Your task to perform on an android device: What's on my calendar today? Image 0: 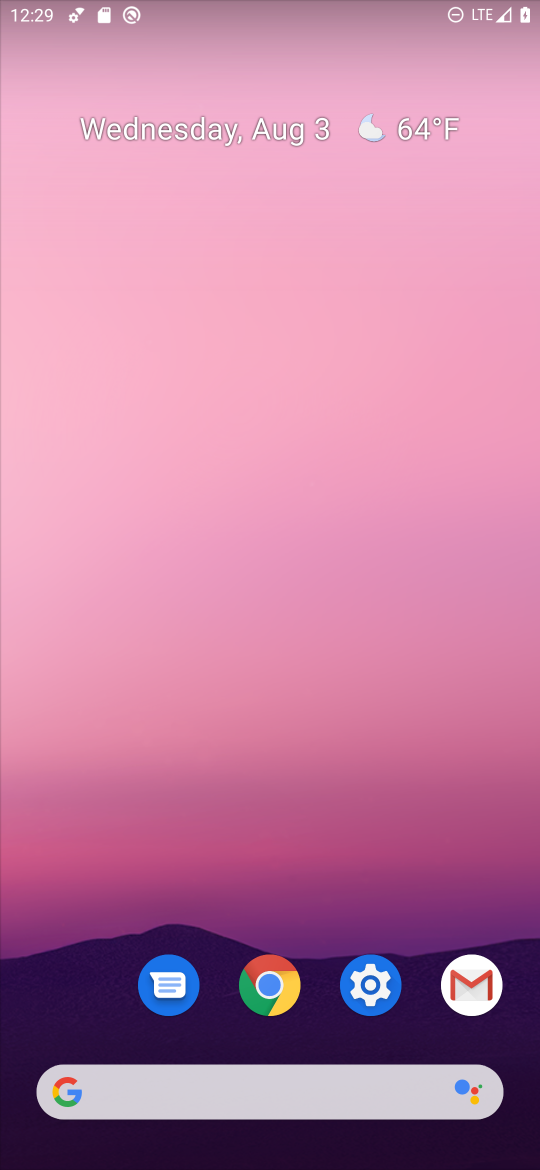
Step 0: press home button
Your task to perform on an android device: What's on my calendar today? Image 1: 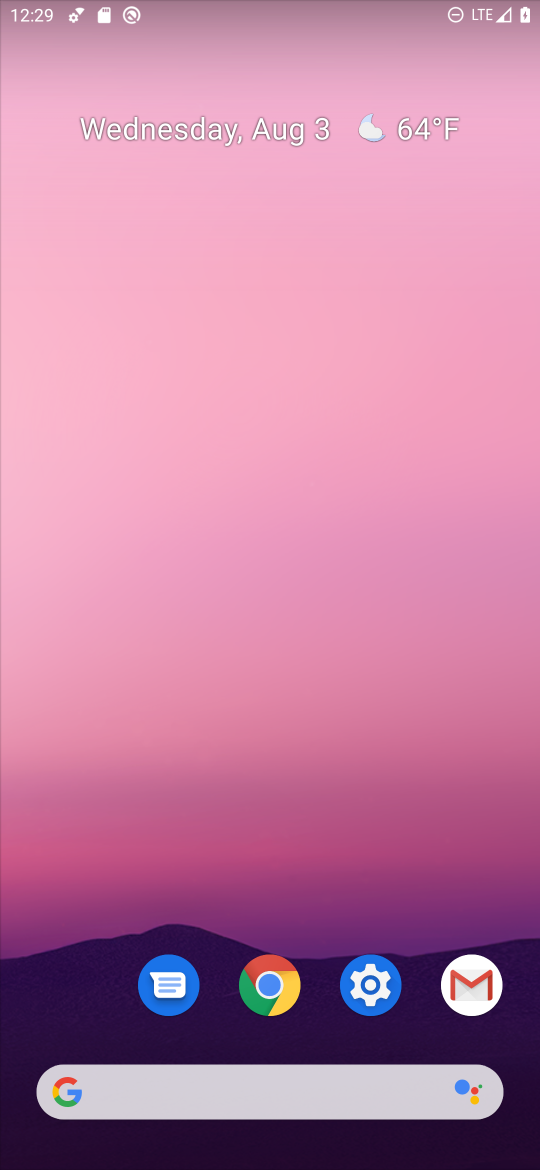
Step 1: drag from (347, 1125) to (126, 191)
Your task to perform on an android device: What's on my calendar today? Image 2: 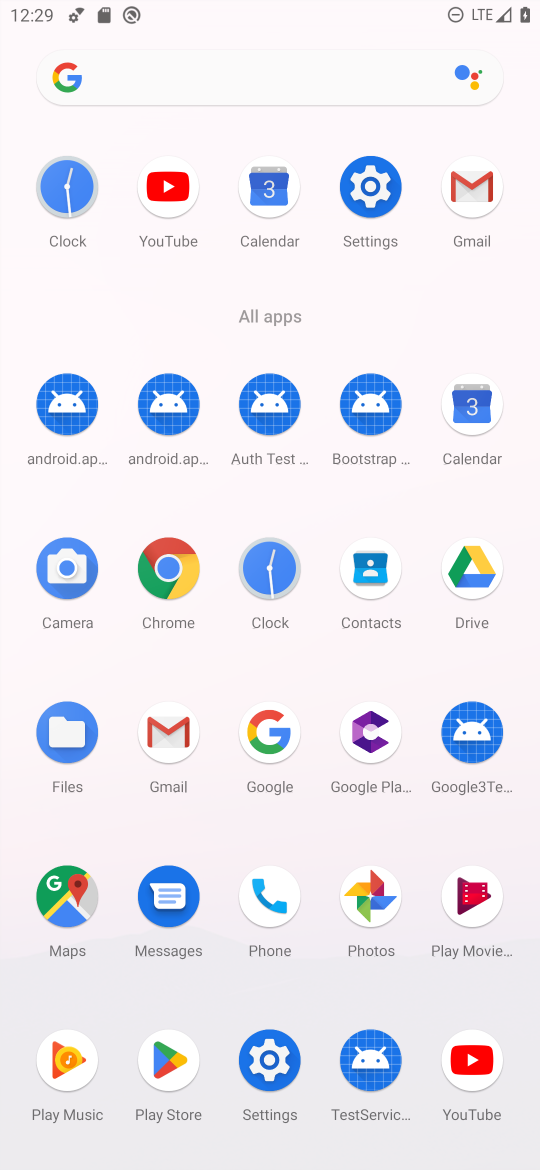
Step 2: click (477, 419)
Your task to perform on an android device: What's on my calendar today? Image 3: 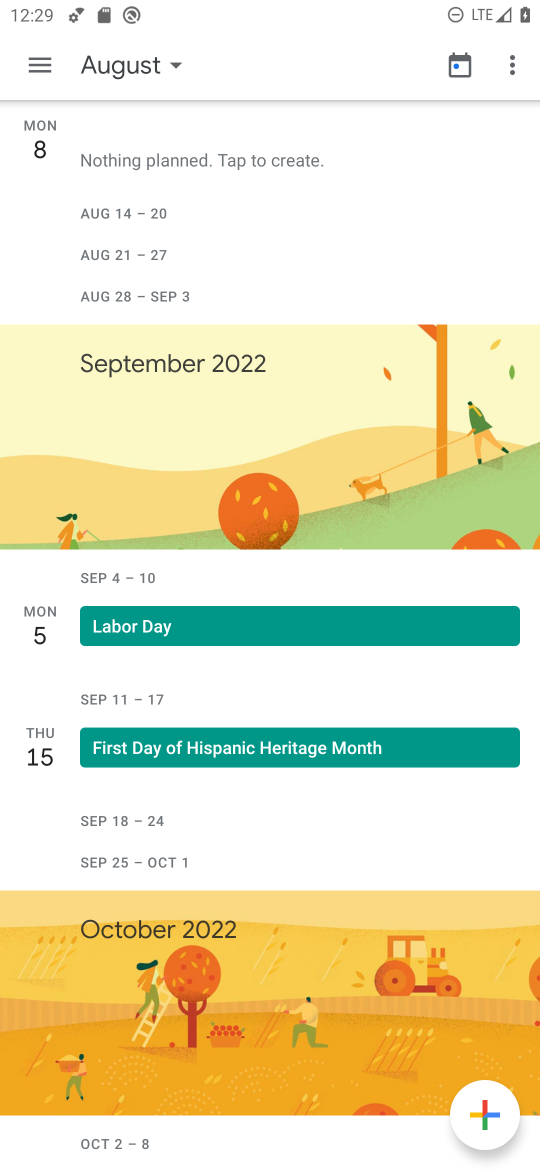
Step 3: click (40, 55)
Your task to perform on an android device: What's on my calendar today? Image 4: 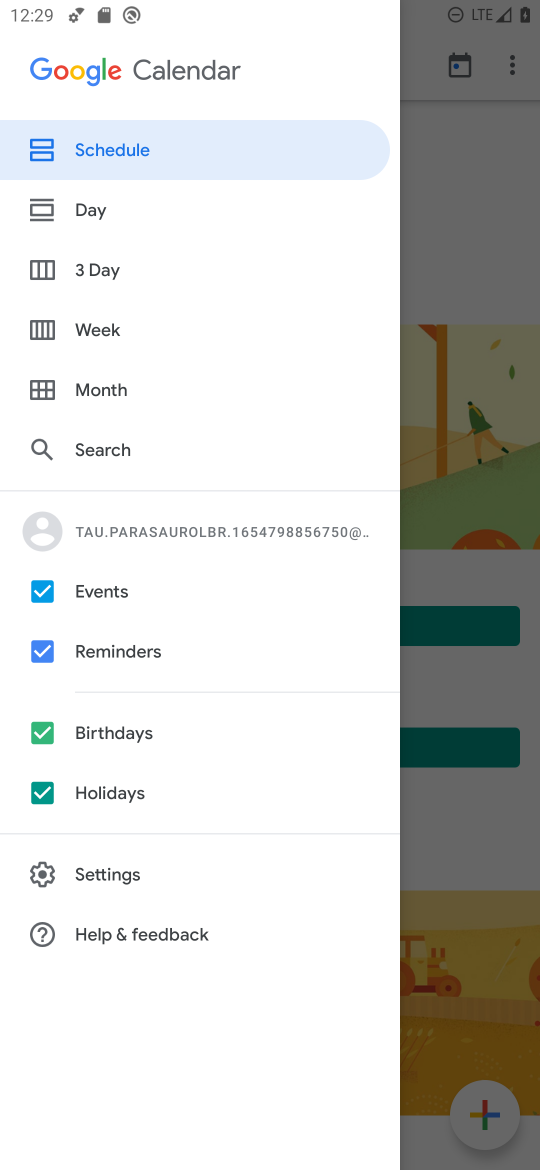
Step 4: click (122, 206)
Your task to perform on an android device: What's on my calendar today? Image 5: 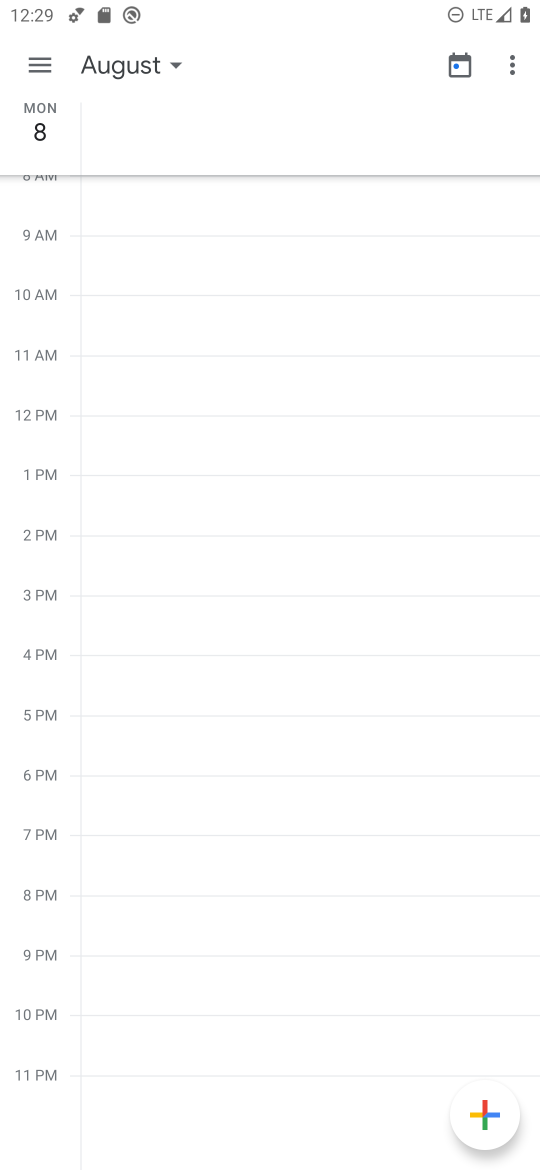
Step 5: click (31, 61)
Your task to perform on an android device: What's on my calendar today? Image 6: 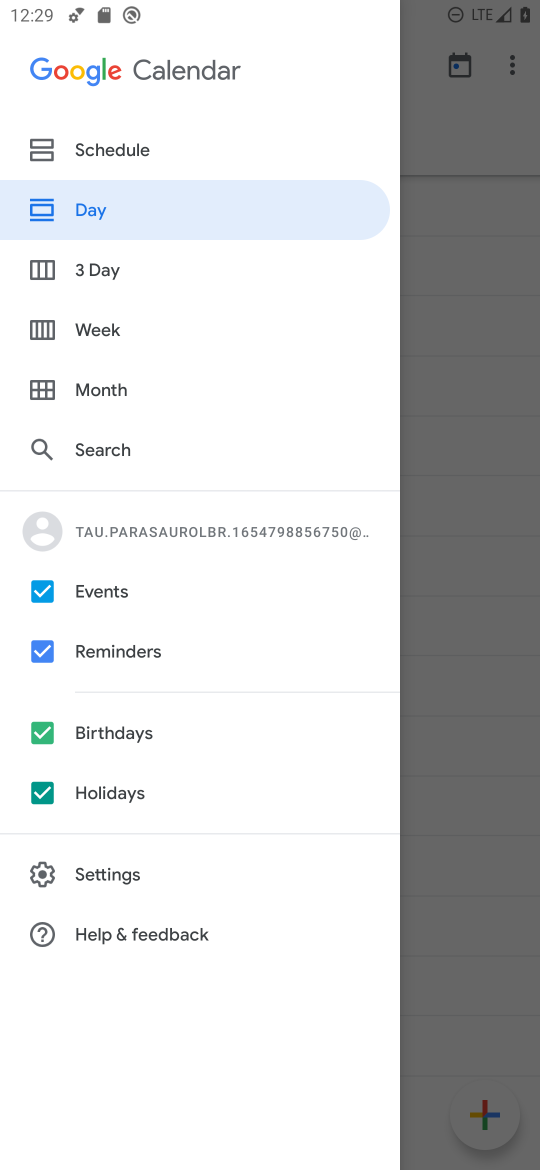
Step 6: click (119, 388)
Your task to perform on an android device: What's on my calendar today? Image 7: 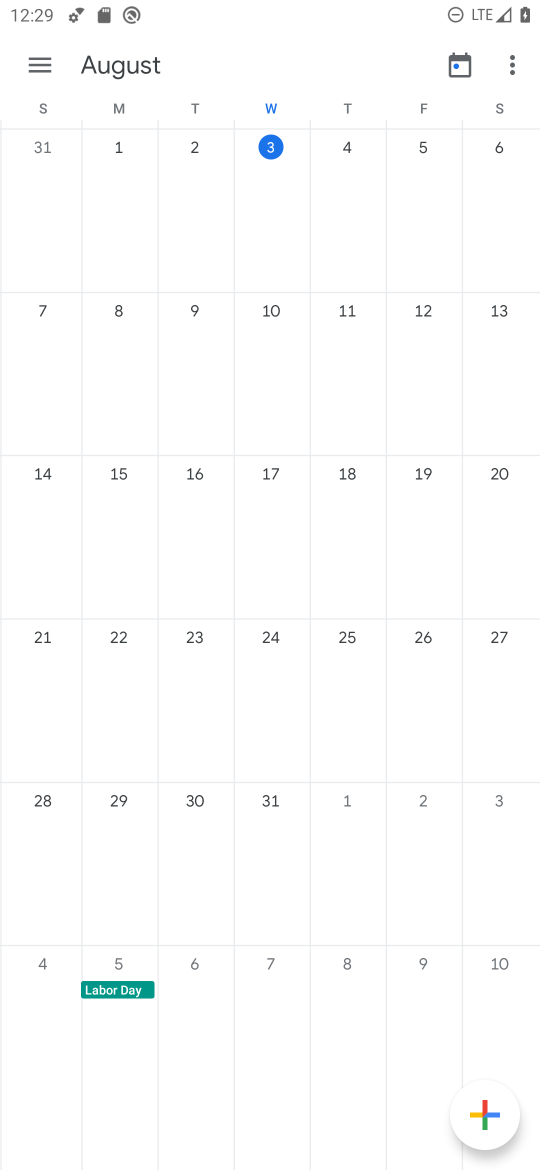
Step 7: click (266, 153)
Your task to perform on an android device: What's on my calendar today? Image 8: 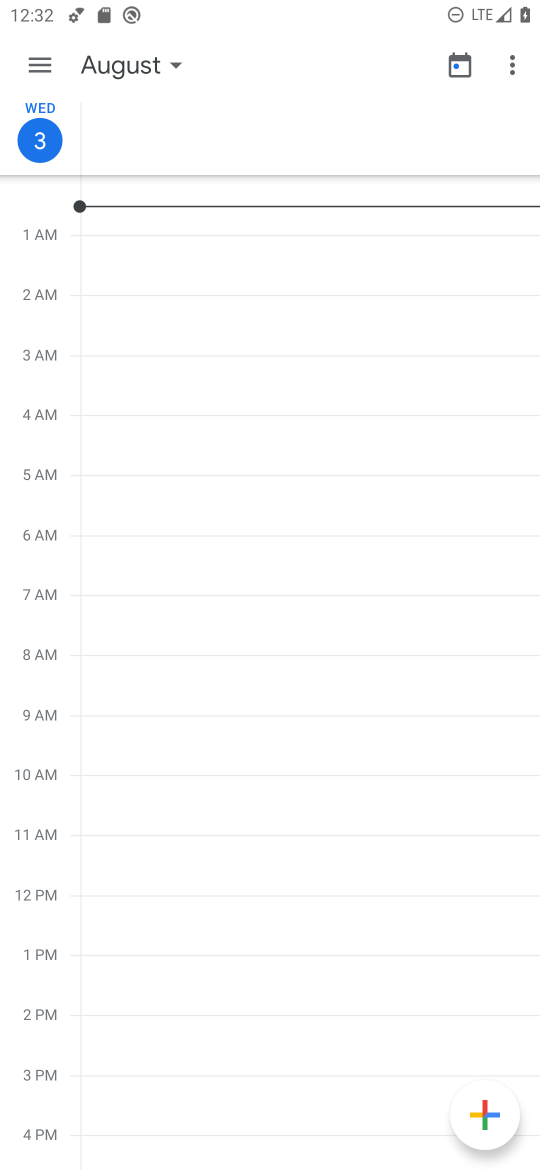
Step 8: task complete